Your task to perform on an android device: find which apps use the phone's location Image 0: 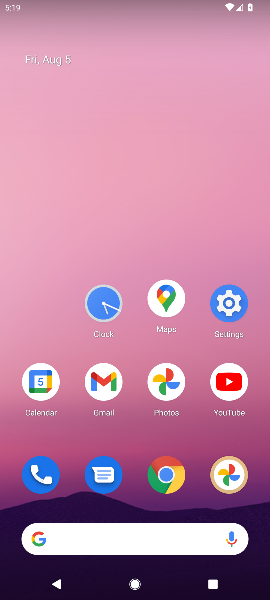
Step 0: click (253, 300)
Your task to perform on an android device: find which apps use the phone's location Image 1: 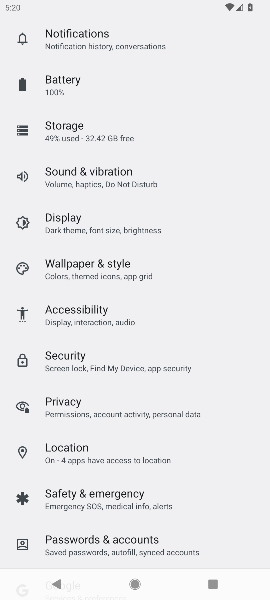
Step 1: click (91, 448)
Your task to perform on an android device: find which apps use the phone's location Image 2: 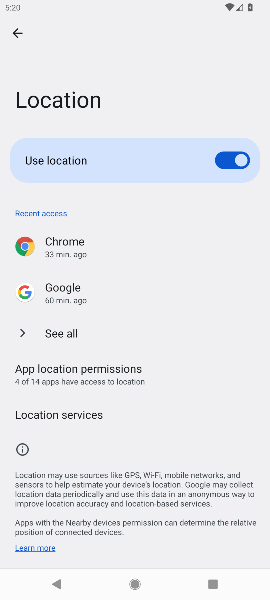
Step 2: click (54, 375)
Your task to perform on an android device: find which apps use the phone's location Image 3: 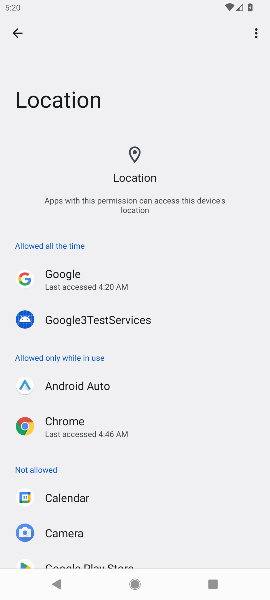
Step 3: task complete